Your task to perform on an android device: Open ESPN.com Image 0: 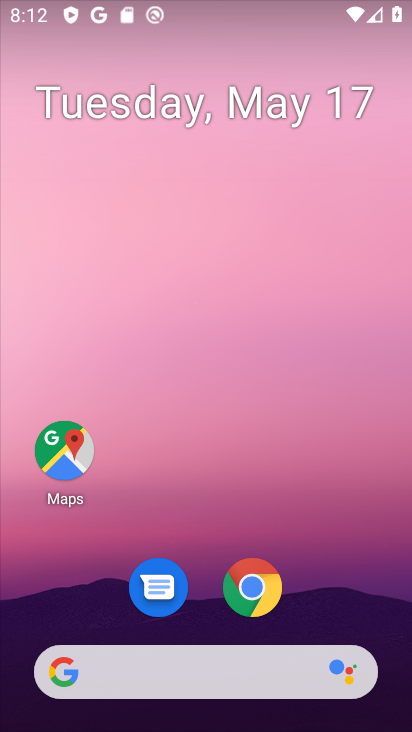
Step 0: drag from (32, 549) to (184, 177)
Your task to perform on an android device: Open ESPN.com Image 1: 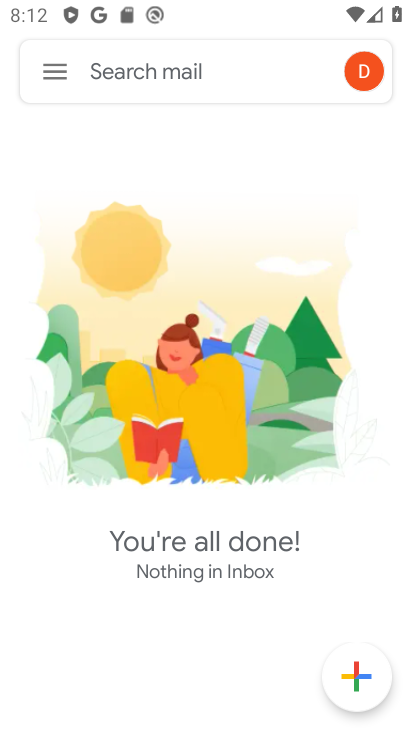
Step 1: click (65, 78)
Your task to perform on an android device: Open ESPN.com Image 2: 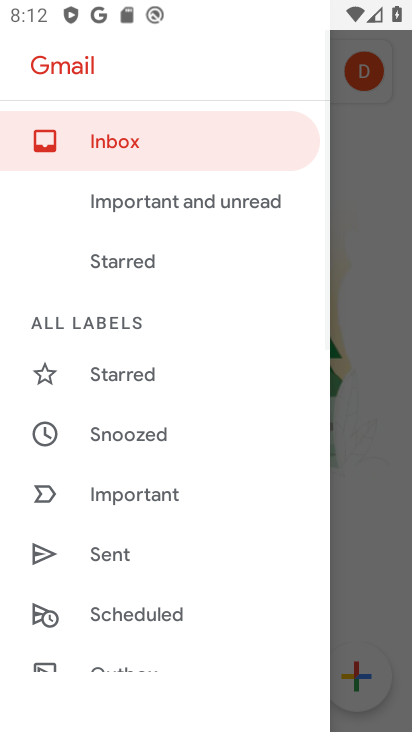
Step 2: press home button
Your task to perform on an android device: Open ESPN.com Image 3: 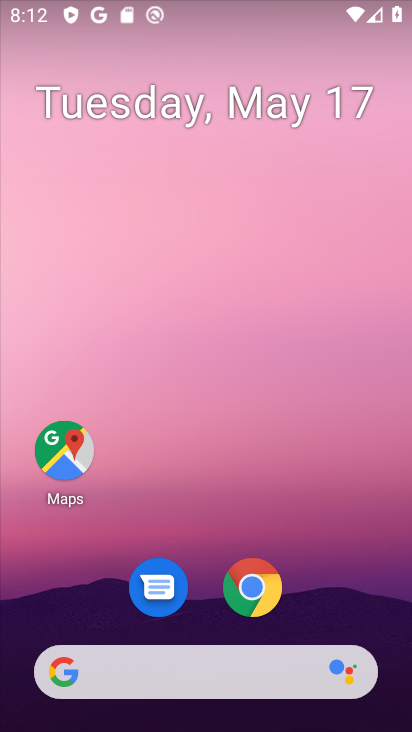
Step 3: click (246, 592)
Your task to perform on an android device: Open ESPN.com Image 4: 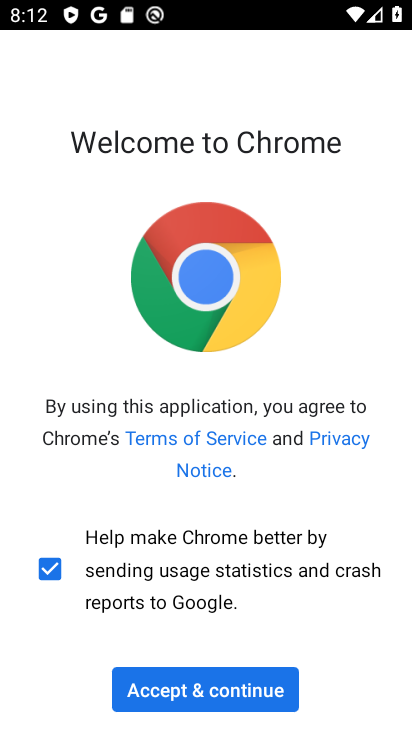
Step 4: click (184, 698)
Your task to perform on an android device: Open ESPN.com Image 5: 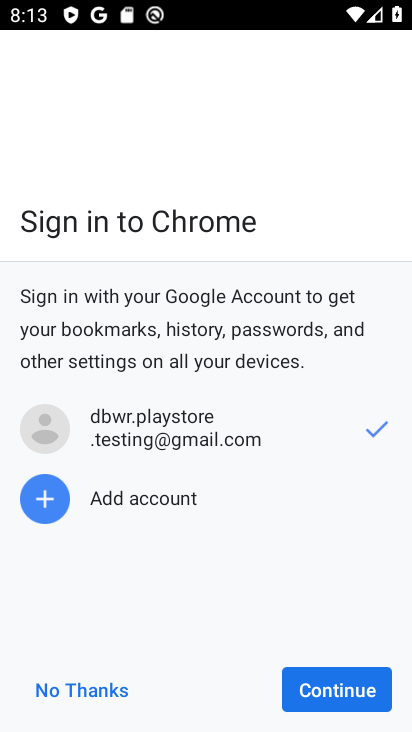
Step 5: click (360, 689)
Your task to perform on an android device: Open ESPN.com Image 6: 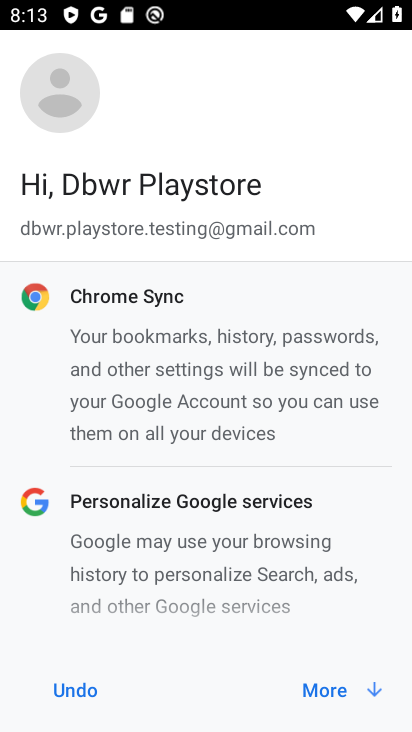
Step 6: click (73, 689)
Your task to perform on an android device: Open ESPN.com Image 7: 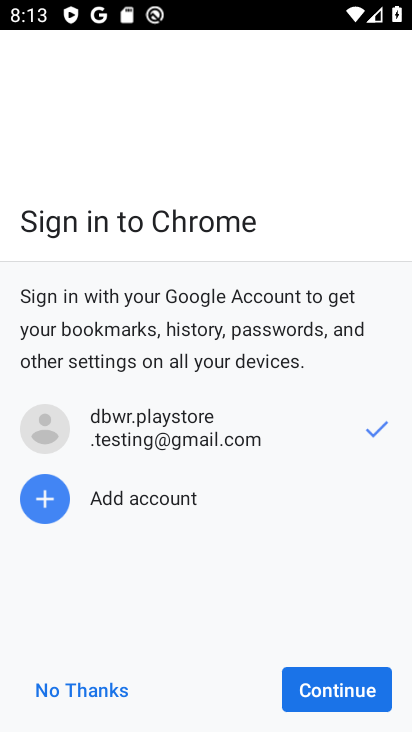
Step 7: click (77, 682)
Your task to perform on an android device: Open ESPN.com Image 8: 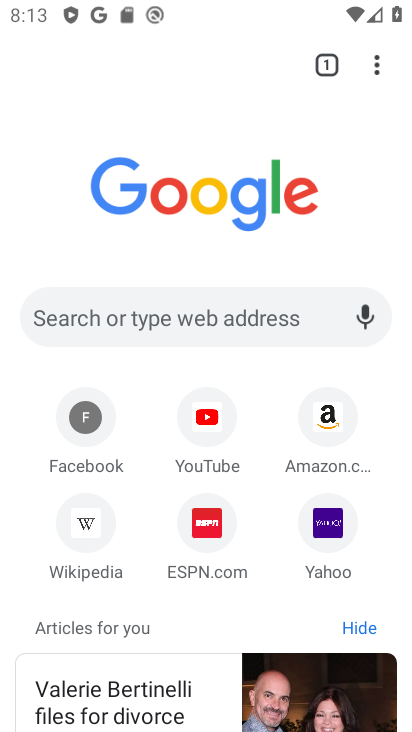
Step 8: click (181, 533)
Your task to perform on an android device: Open ESPN.com Image 9: 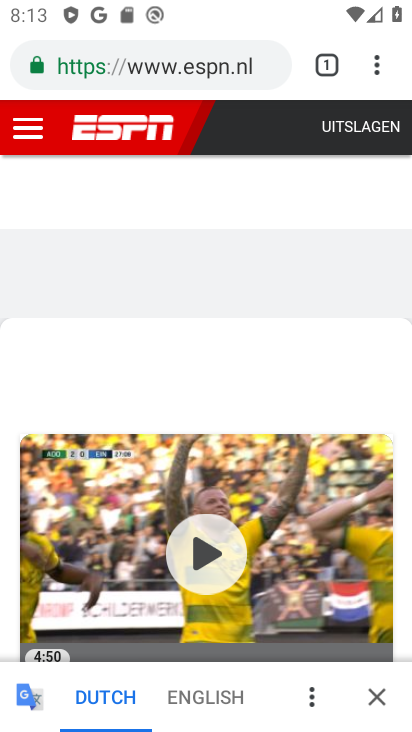
Step 9: task complete